Your task to perform on an android device: Add jbl flip 4 to the cart on costco.com Image 0: 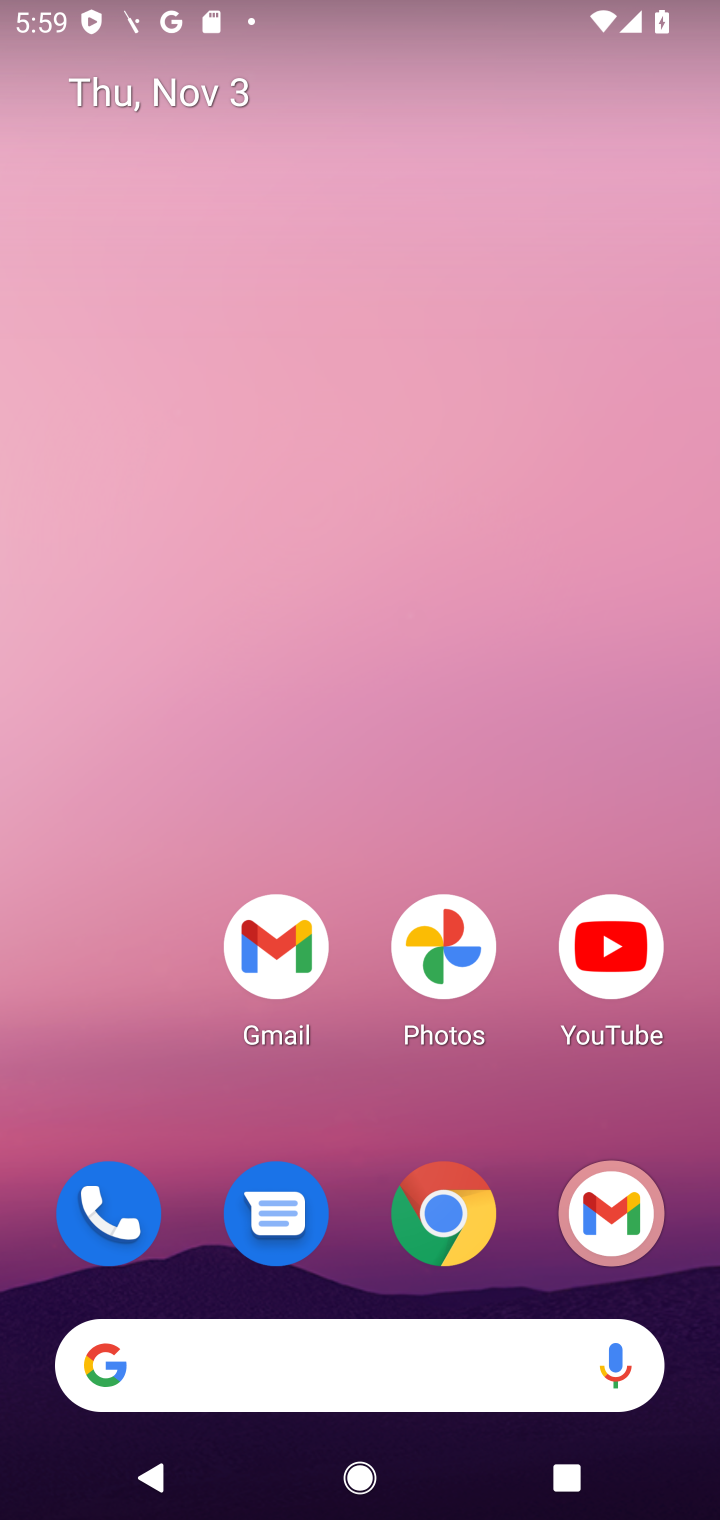
Step 0: click (434, 1237)
Your task to perform on an android device: Add jbl flip 4 to the cart on costco.com Image 1: 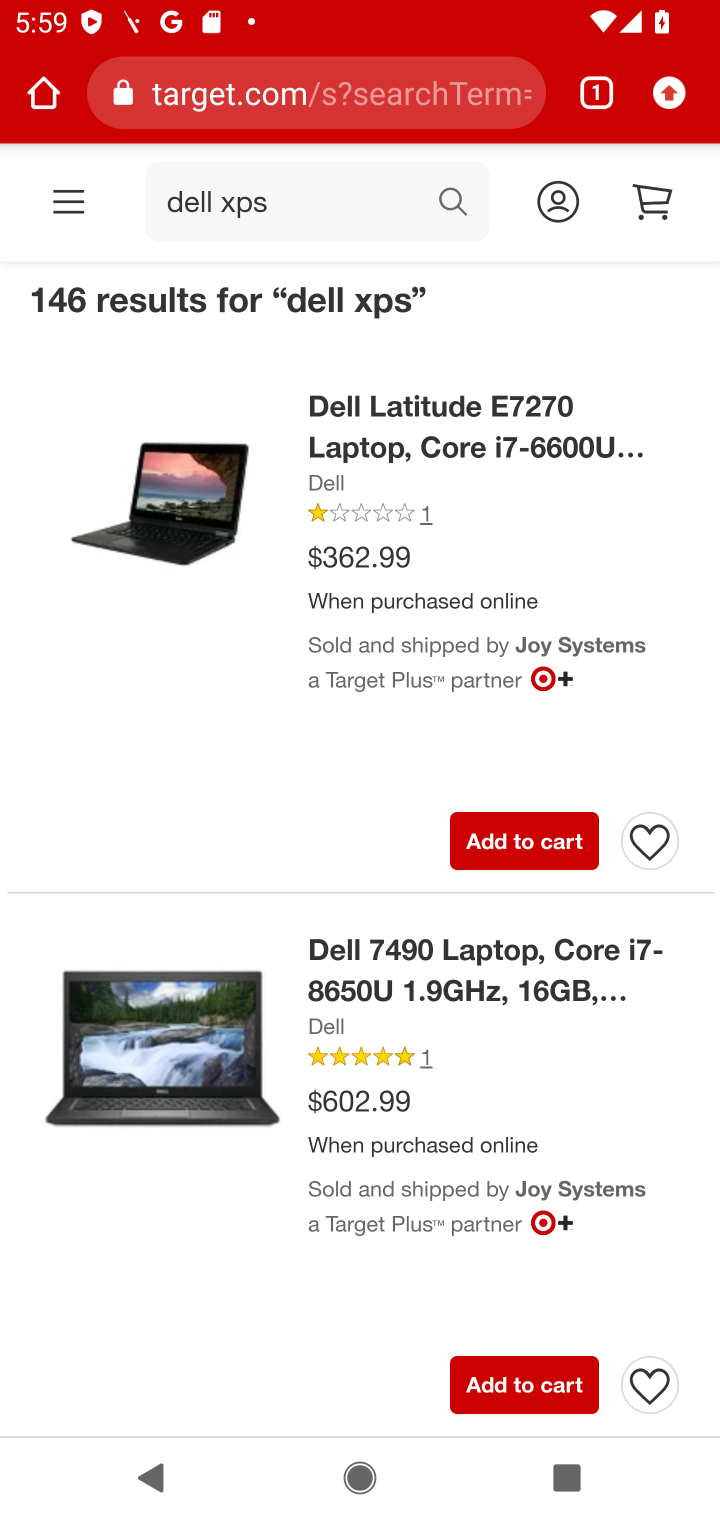
Step 1: click (289, 72)
Your task to perform on an android device: Add jbl flip 4 to the cart on costco.com Image 2: 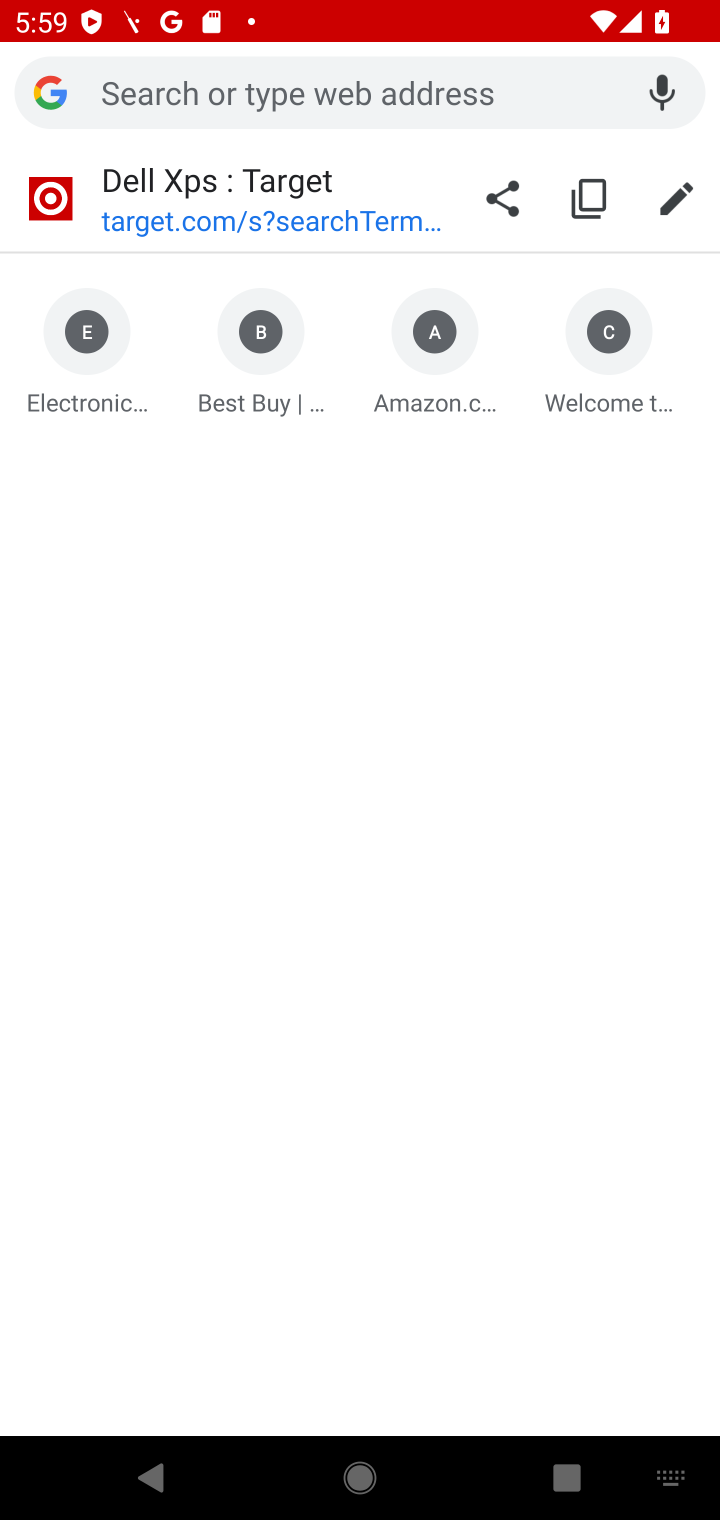
Step 2: type "costco.om"
Your task to perform on an android device: Add jbl flip 4 to the cart on costco.com Image 3: 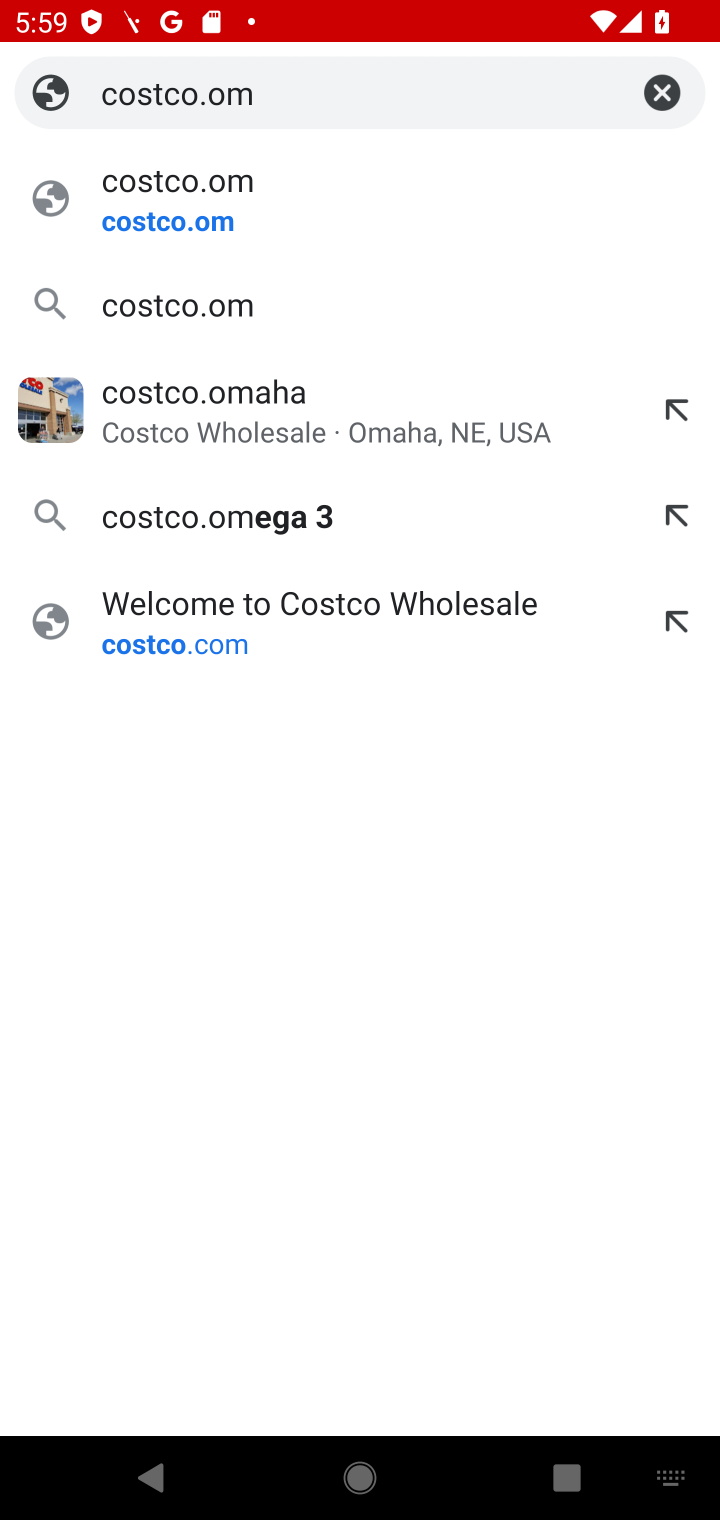
Step 3: click (206, 96)
Your task to perform on an android device: Add jbl flip 4 to the cart on costco.com Image 4: 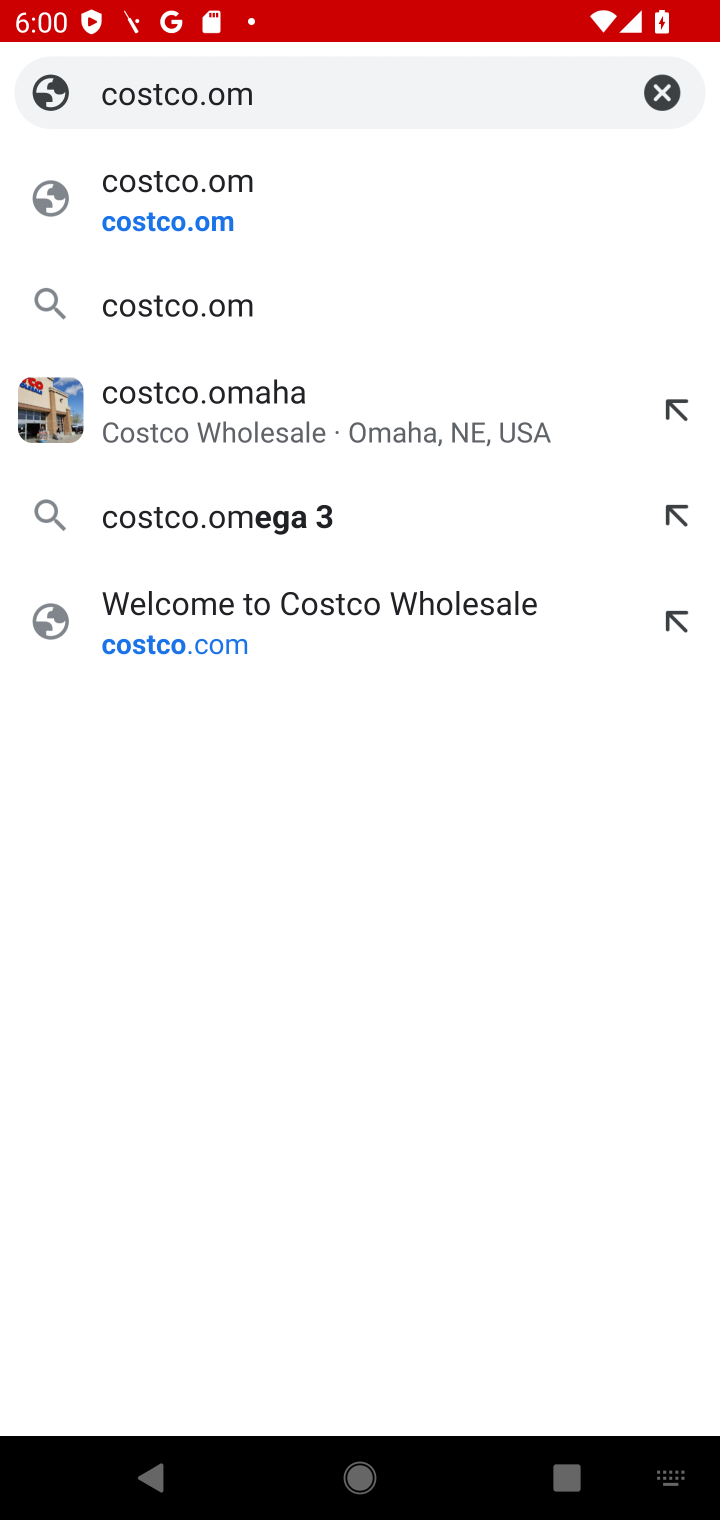
Step 4: type "c"
Your task to perform on an android device: Add jbl flip 4 to the cart on costco.com Image 5: 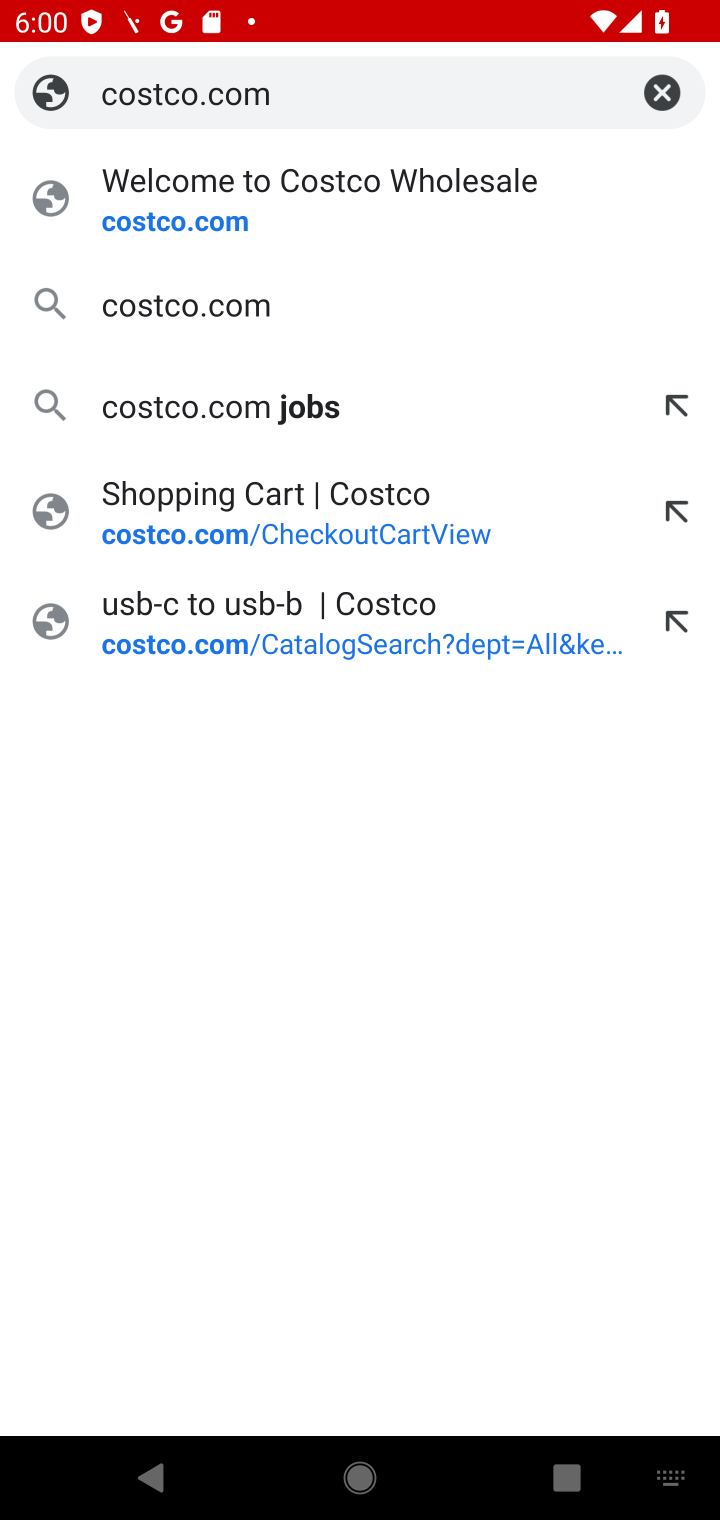
Step 5: click (217, 226)
Your task to perform on an android device: Add jbl flip 4 to the cart on costco.com Image 6: 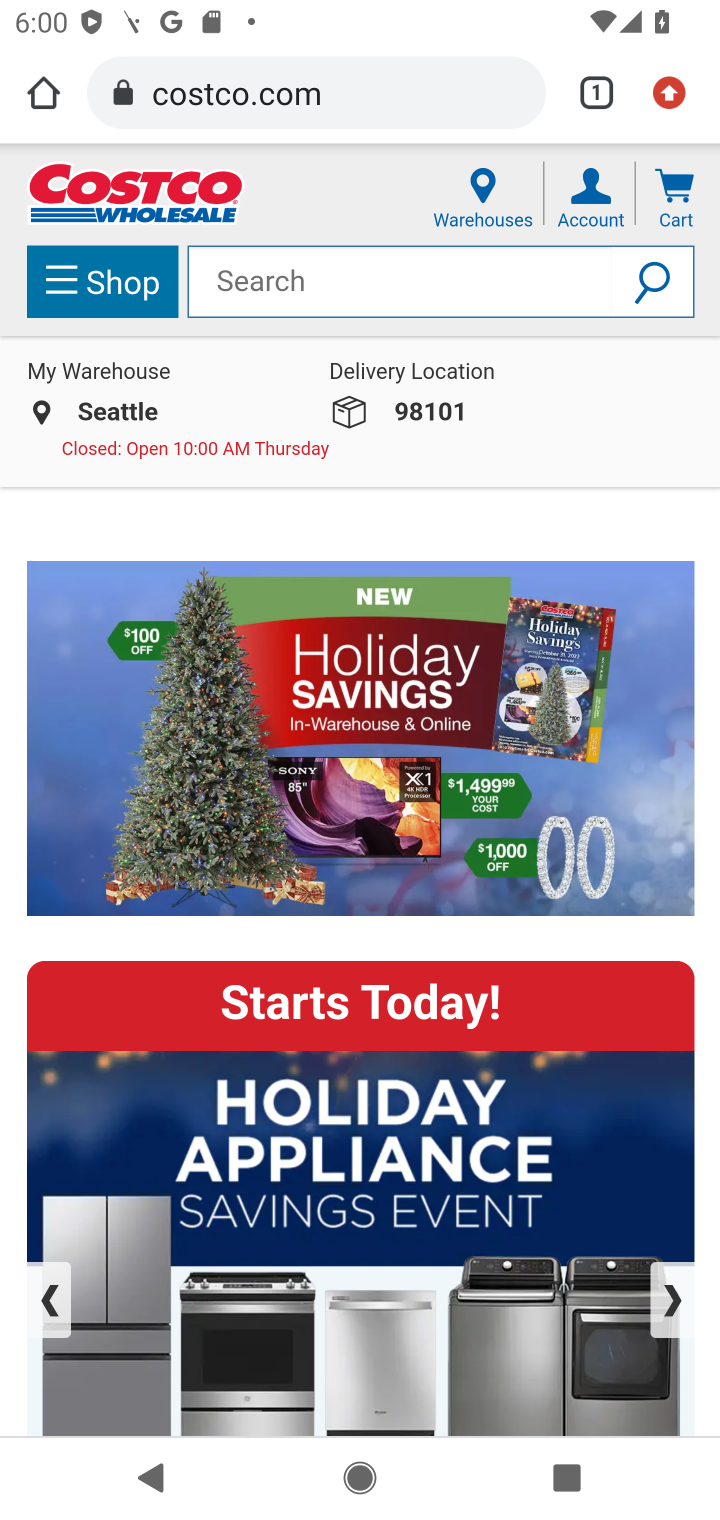
Step 6: click (309, 283)
Your task to perform on an android device: Add jbl flip 4 to the cart on costco.com Image 7: 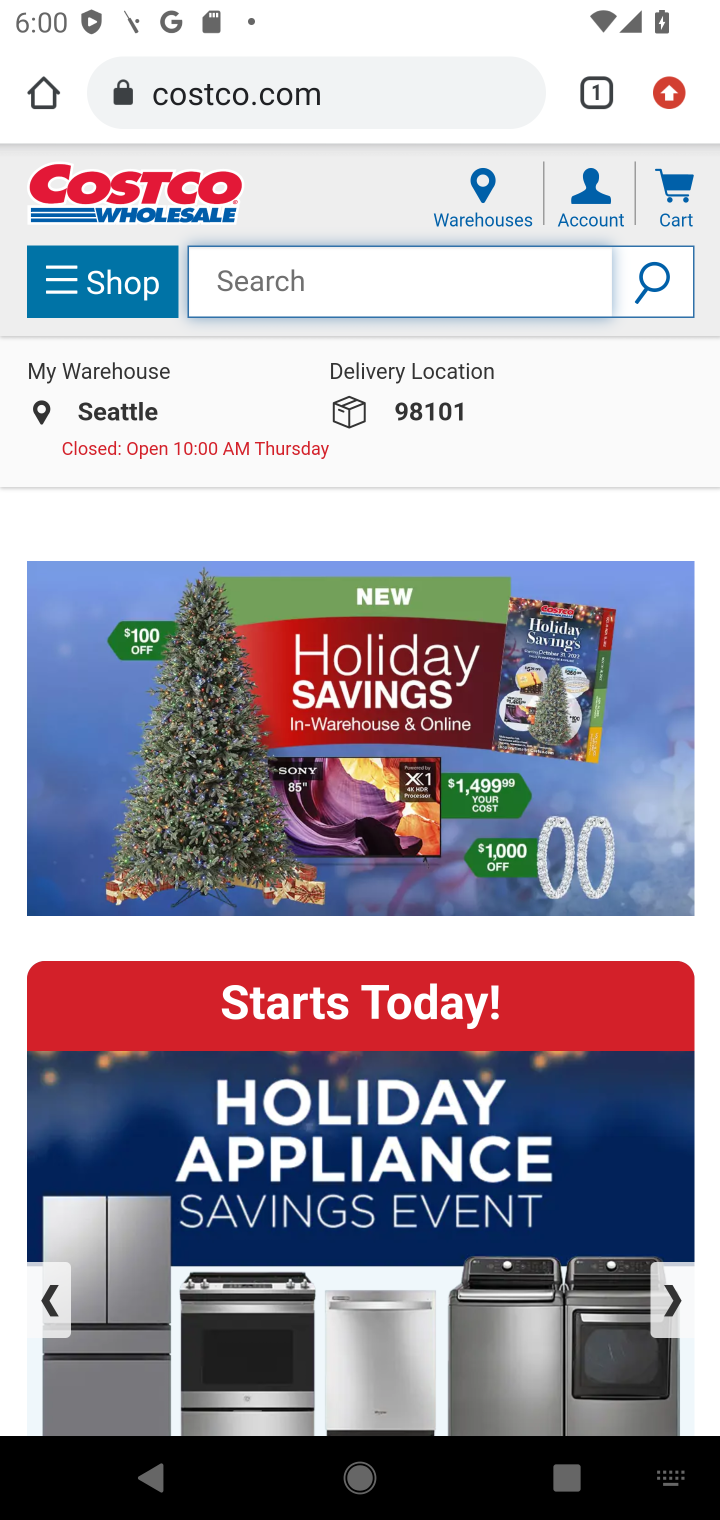
Step 7: type " jbl flip 4"
Your task to perform on an android device: Add jbl flip 4 to the cart on costco.com Image 8: 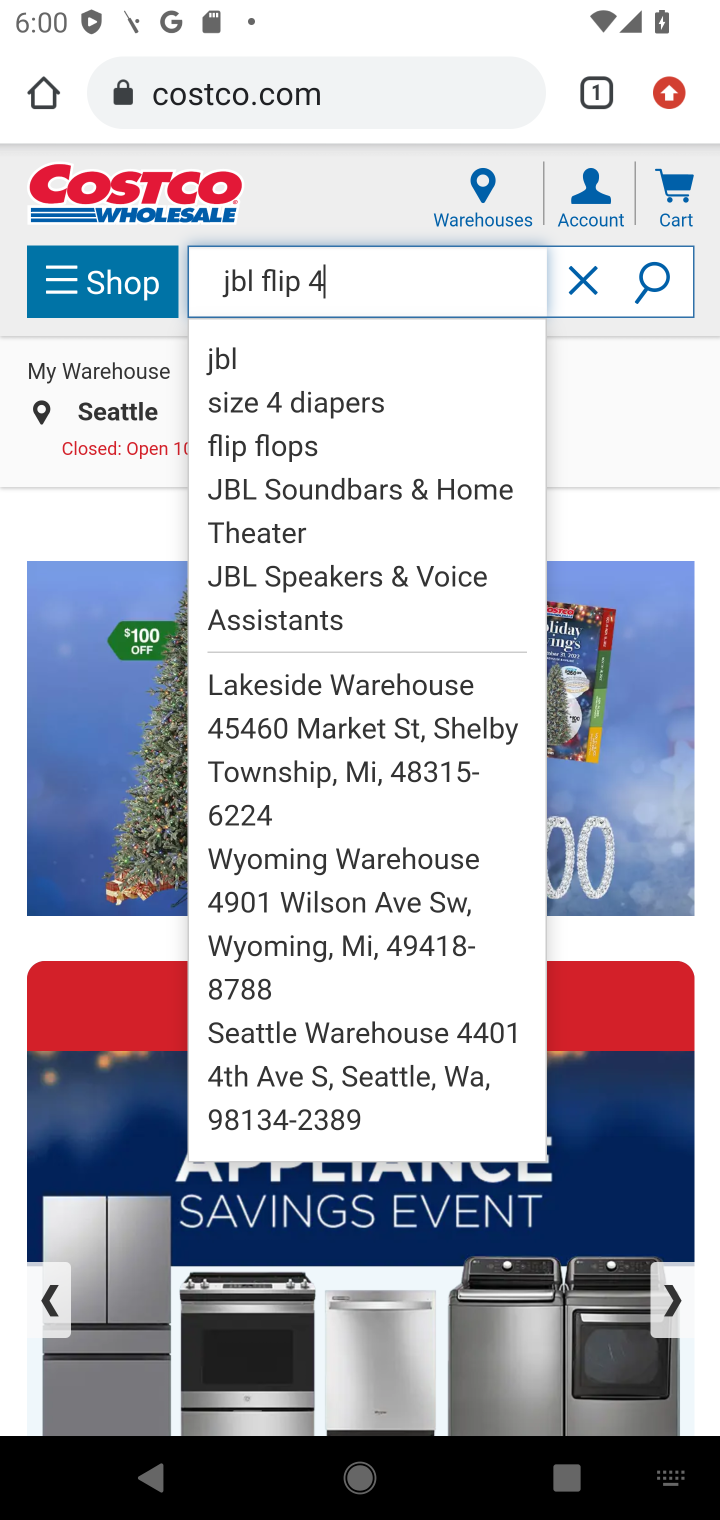
Step 8: click (641, 290)
Your task to perform on an android device: Add jbl flip 4 to the cart on costco.com Image 9: 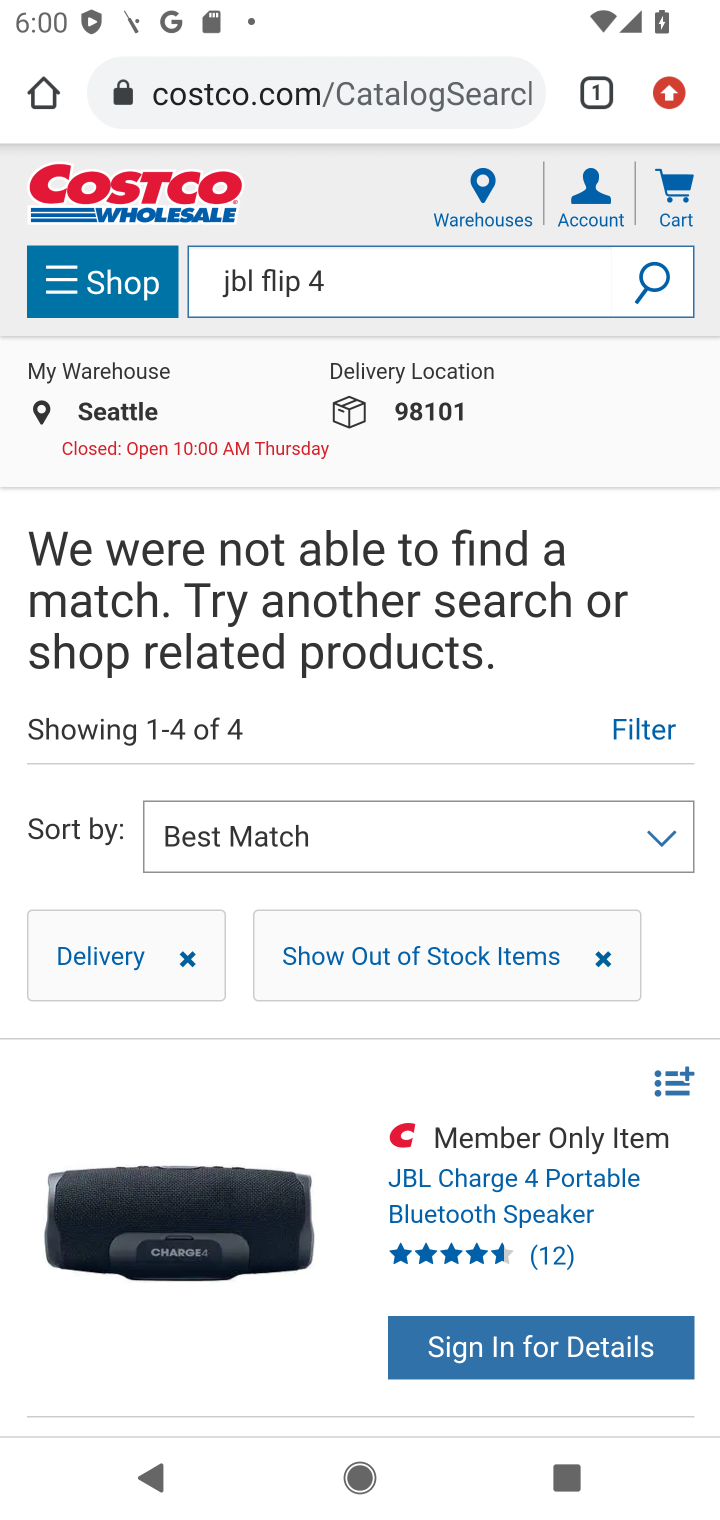
Step 9: task complete